Your task to perform on an android device: clear all cookies in the chrome app Image 0: 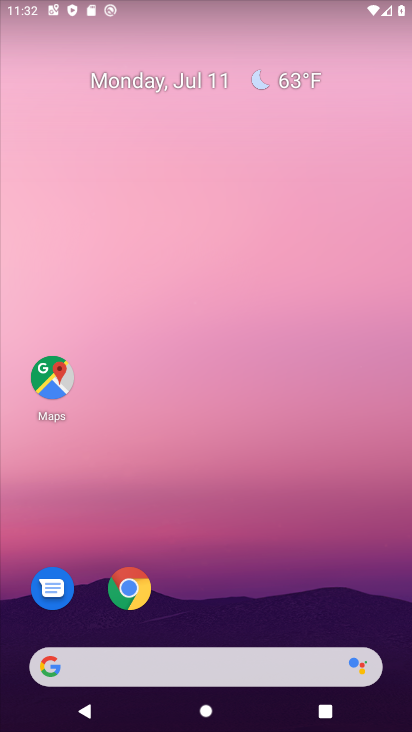
Step 0: click (132, 586)
Your task to perform on an android device: clear all cookies in the chrome app Image 1: 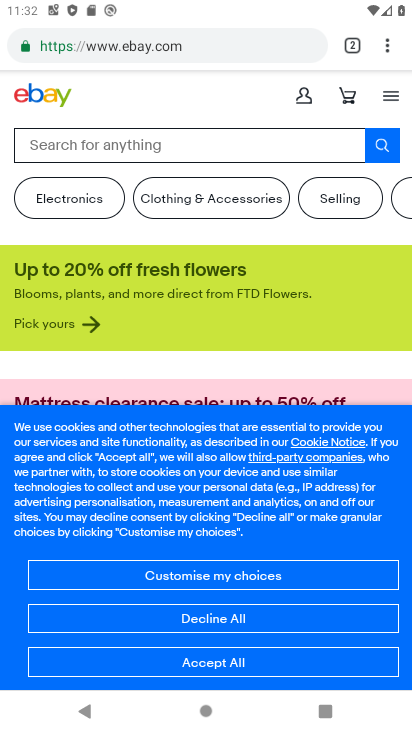
Step 1: click (387, 49)
Your task to perform on an android device: clear all cookies in the chrome app Image 2: 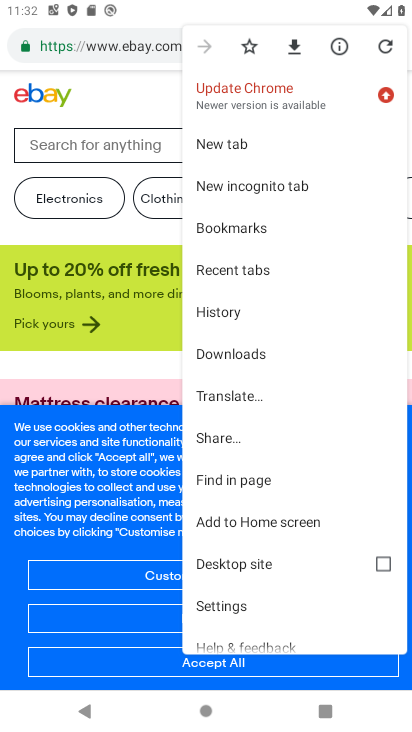
Step 2: click (214, 313)
Your task to perform on an android device: clear all cookies in the chrome app Image 3: 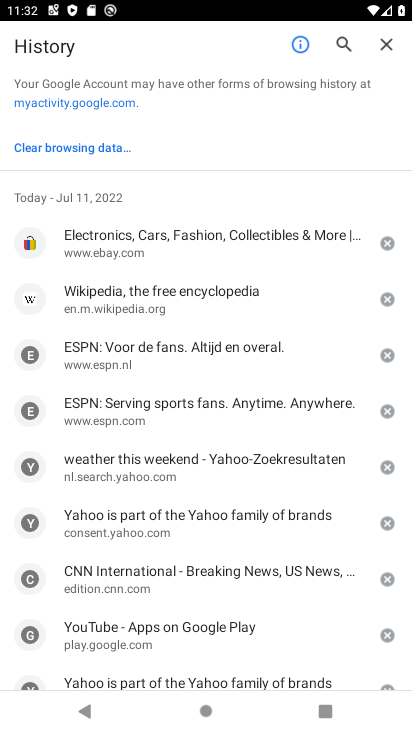
Step 3: click (84, 144)
Your task to perform on an android device: clear all cookies in the chrome app Image 4: 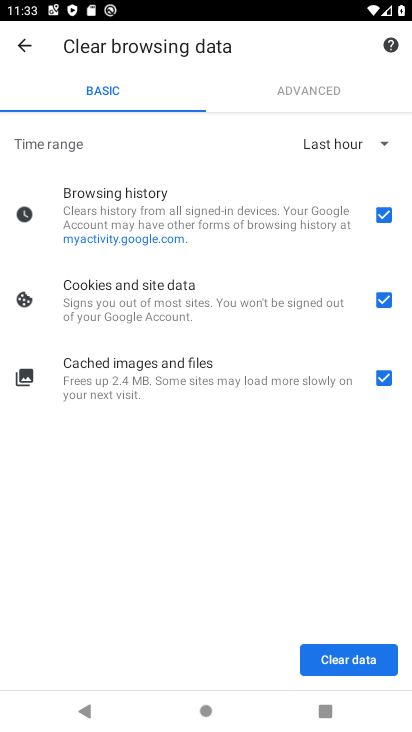
Step 4: click (384, 384)
Your task to perform on an android device: clear all cookies in the chrome app Image 5: 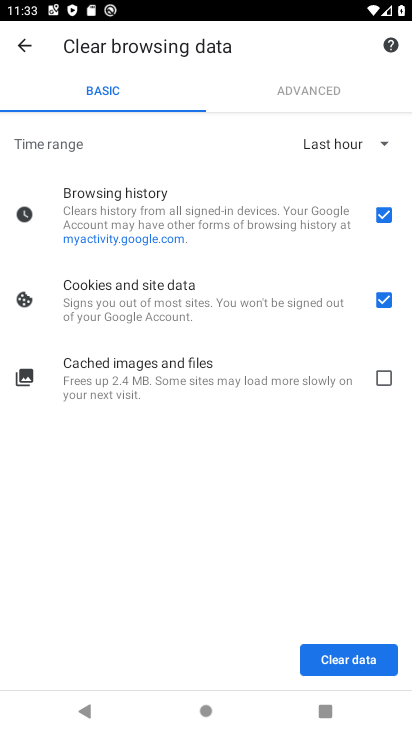
Step 5: click (384, 214)
Your task to perform on an android device: clear all cookies in the chrome app Image 6: 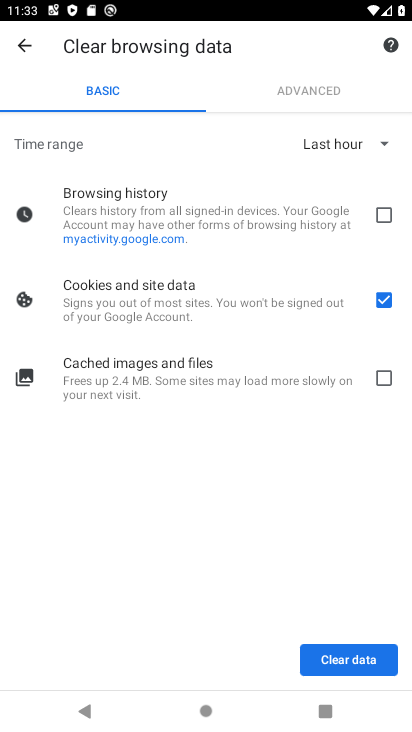
Step 6: click (348, 664)
Your task to perform on an android device: clear all cookies in the chrome app Image 7: 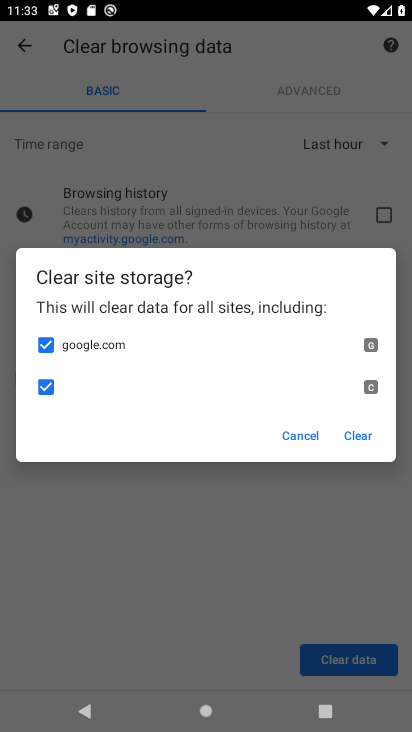
Step 7: click (356, 441)
Your task to perform on an android device: clear all cookies in the chrome app Image 8: 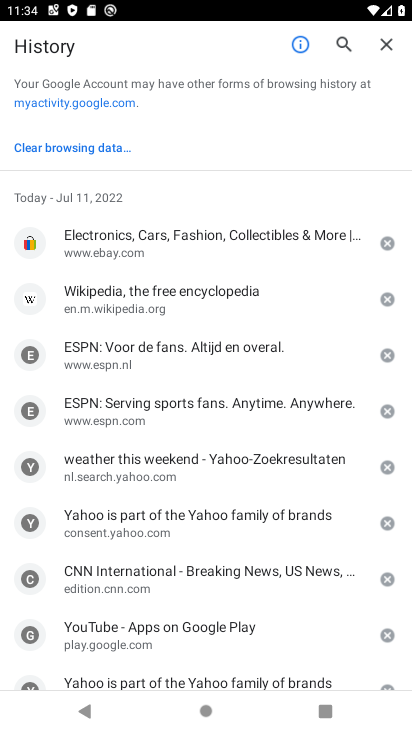
Step 8: task complete